Your task to perform on an android device: turn off wifi Image 0: 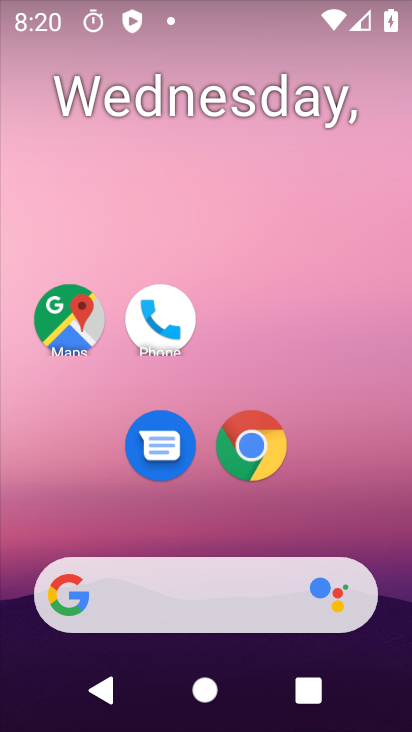
Step 0: drag from (318, 513) to (313, 151)
Your task to perform on an android device: turn off wifi Image 1: 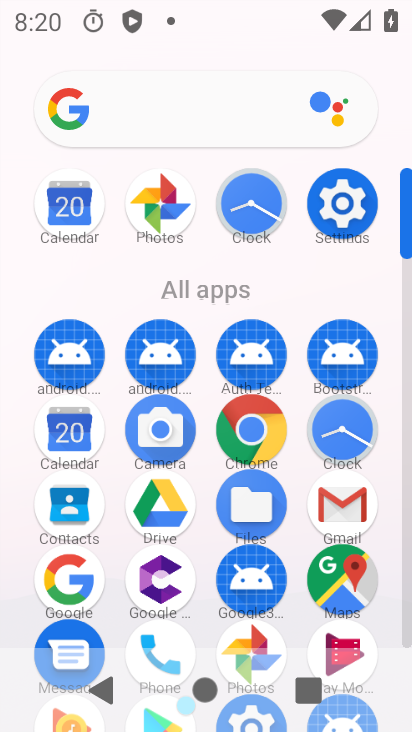
Step 1: click (339, 203)
Your task to perform on an android device: turn off wifi Image 2: 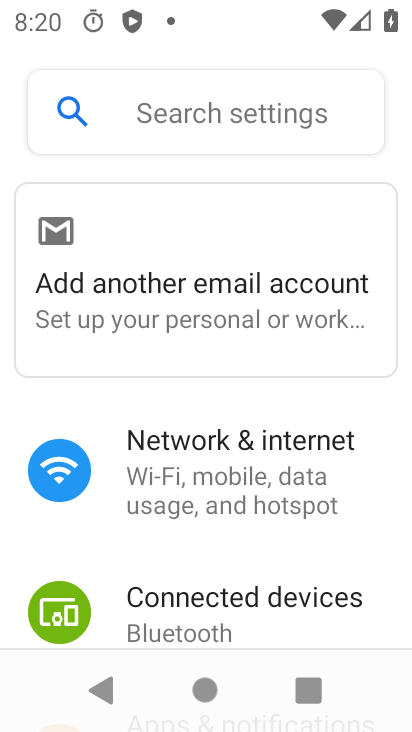
Step 2: click (233, 458)
Your task to perform on an android device: turn off wifi Image 3: 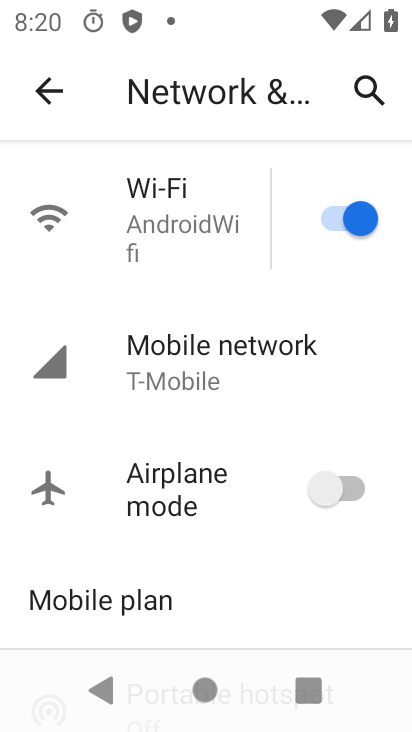
Step 3: task complete